Your task to perform on an android device: show emergency info Image 0: 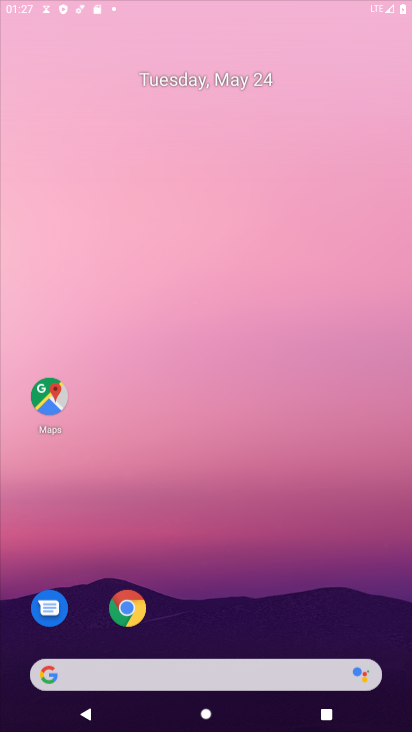
Step 0: click (252, 172)
Your task to perform on an android device: show emergency info Image 1: 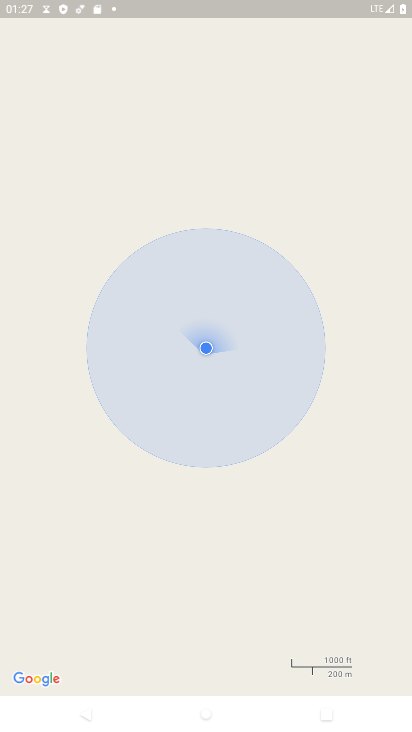
Step 1: press home button
Your task to perform on an android device: show emergency info Image 2: 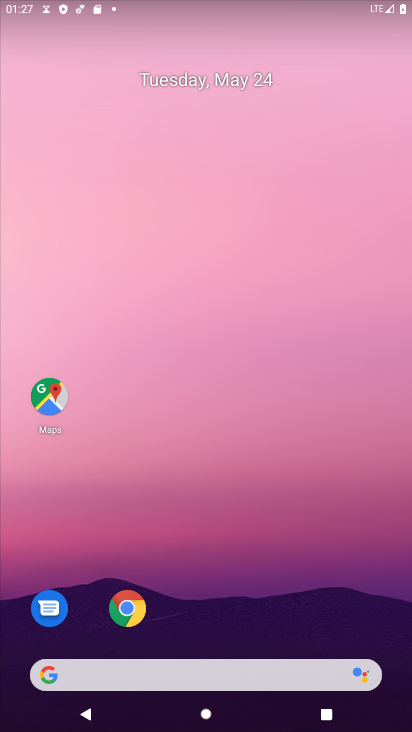
Step 2: drag from (274, 628) to (178, 86)
Your task to perform on an android device: show emergency info Image 3: 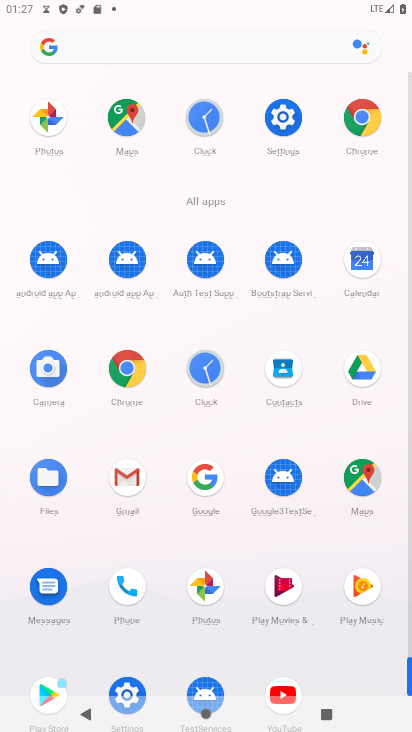
Step 3: click (272, 123)
Your task to perform on an android device: show emergency info Image 4: 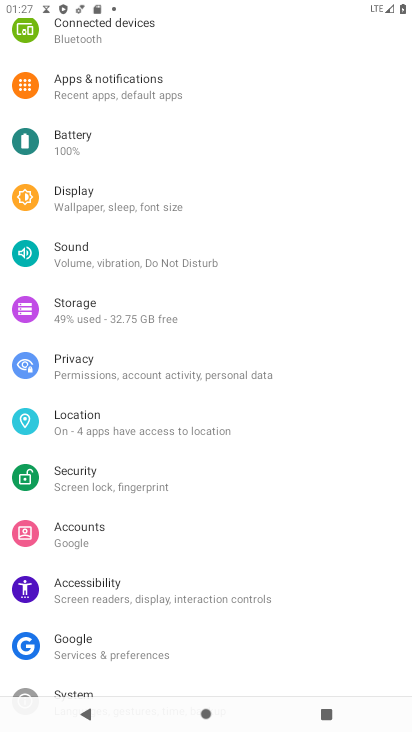
Step 4: drag from (228, 657) to (157, 115)
Your task to perform on an android device: show emergency info Image 5: 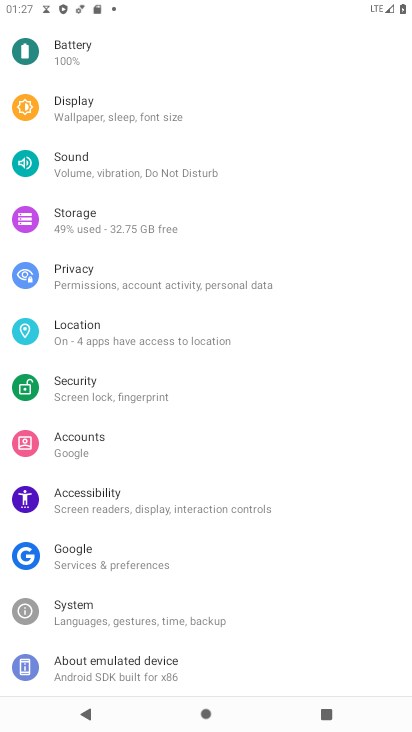
Step 5: click (176, 668)
Your task to perform on an android device: show emergency info Image 6: 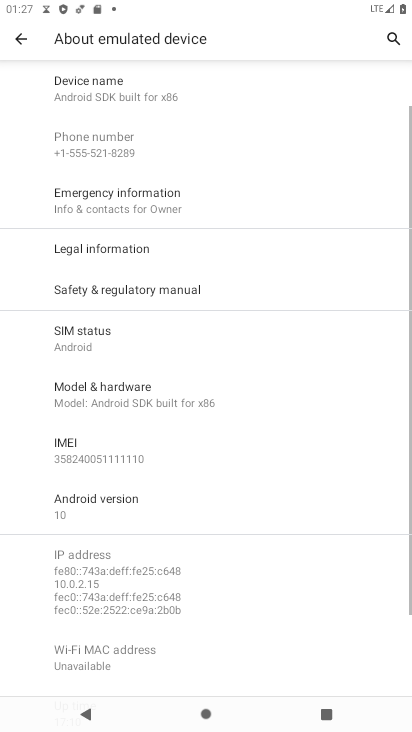
Step 6: click (187, 199)
Your task to perform on an android device: show emergency info Image 7: 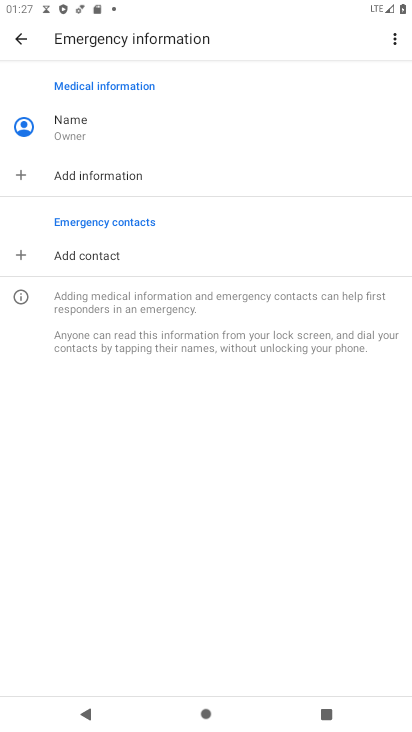
Step 7: task complete